Your task to perform on an android device: Search for sushi restaurants on Maps Image 0: 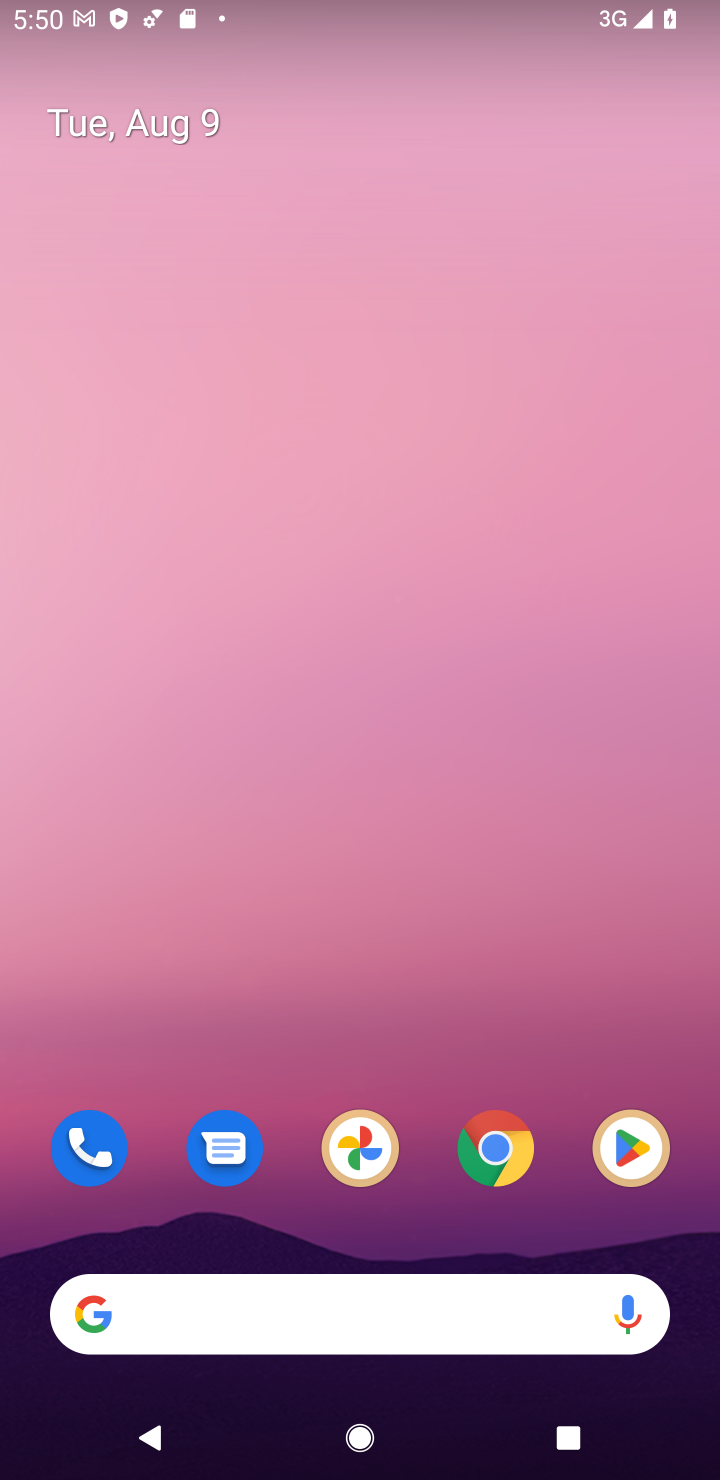
Step 0: drag from (288, 636) to (282, 0)
Your task to perform on an android device: Search for sushi restaurants on Maps Image 1: 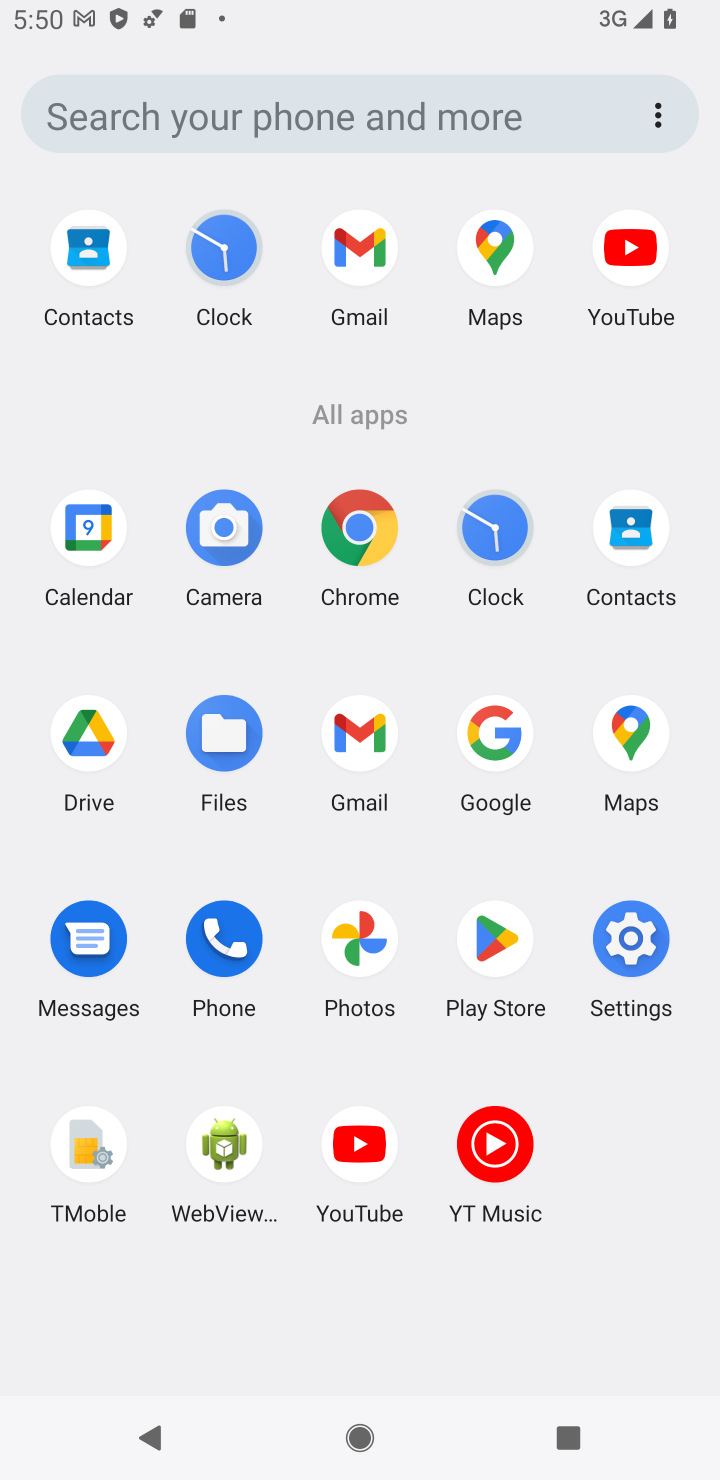
Step 1: click (648, 755)
Your task to perform on an android device: Search for sushi restaurants on Maps Image 2: 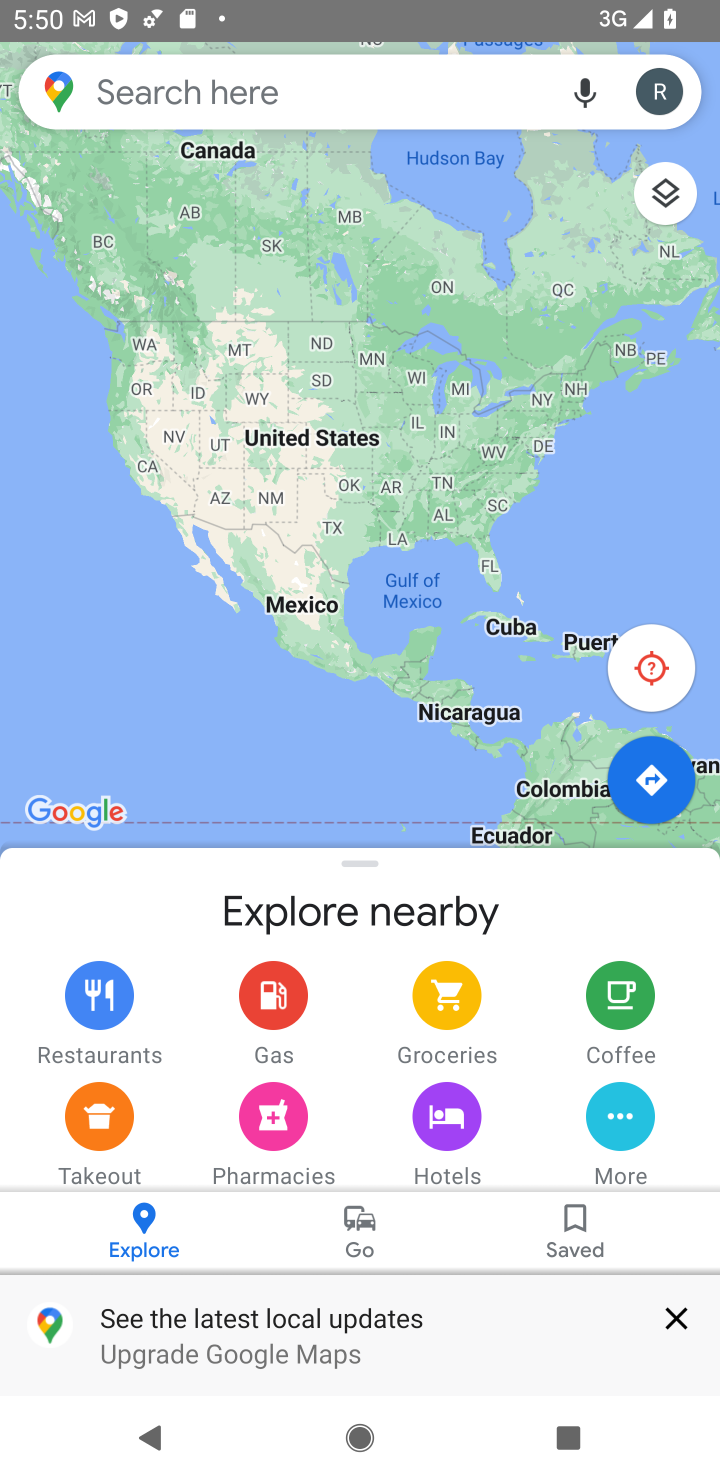
Step 2: click (226, 77)
Your task to perform on an android device: Search for sushi restaurants on Maps Image 3: 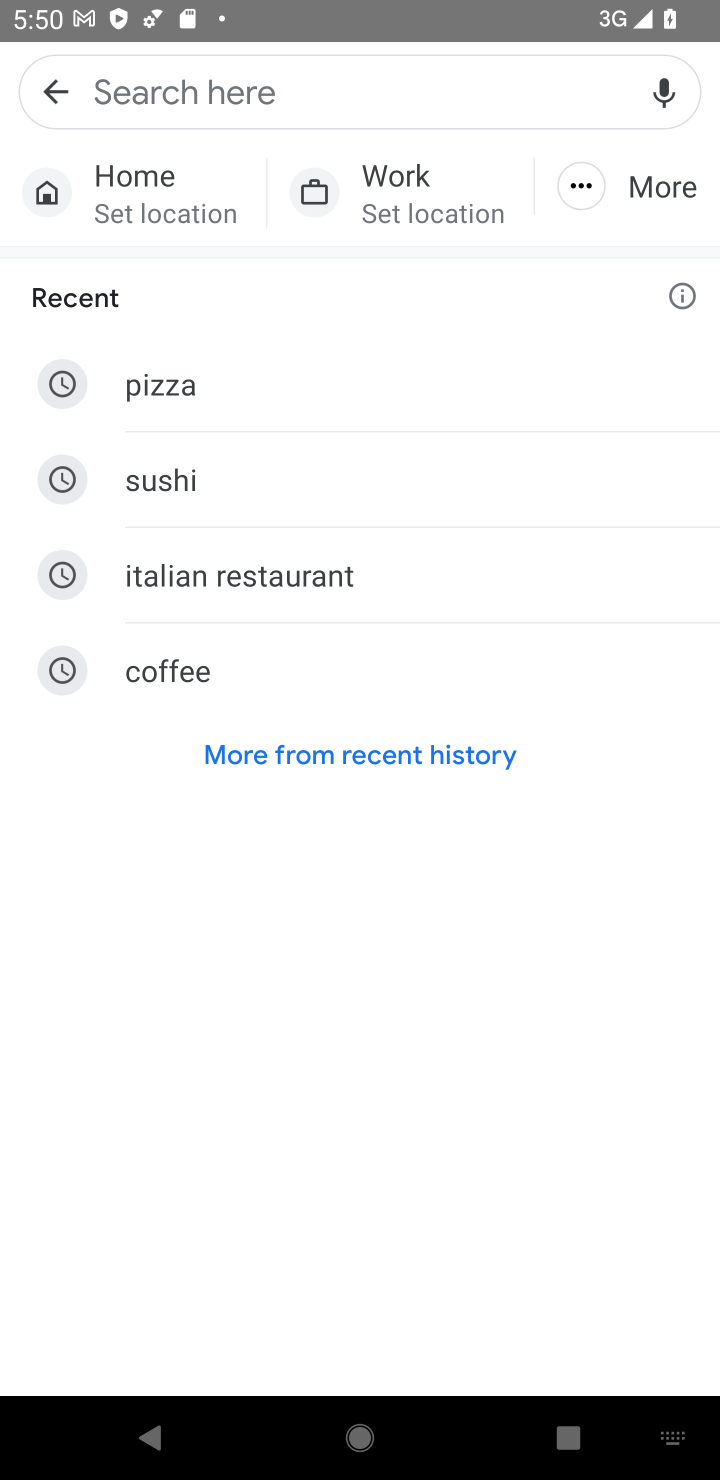
Step 3: type "Sushi restaurants"
Your task to perform on an android device: Search for sushi restaurants on Maps Image 4: 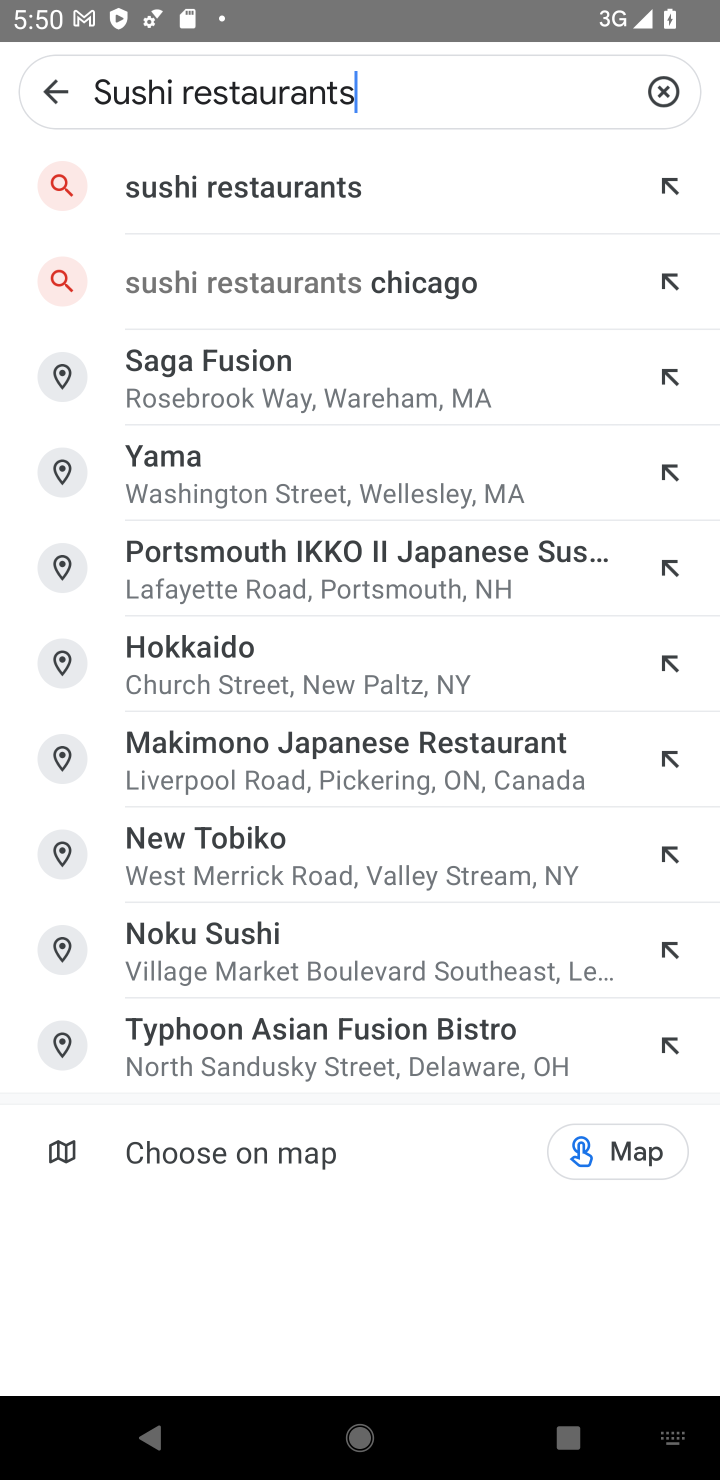
Step 4: click (316, 218)
Your task to perform on an android device: Search for sushi restaurants on Maps Image 5: 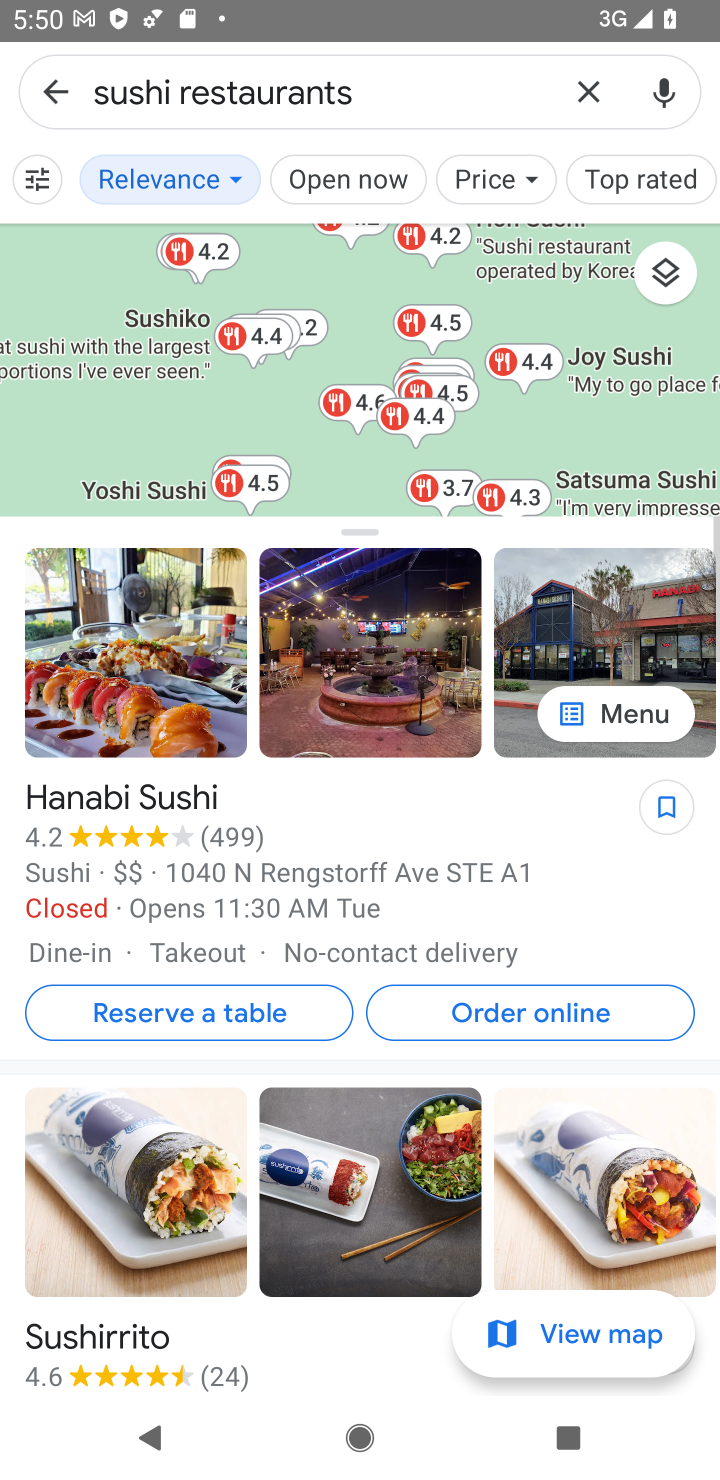
Step 5: task complete